Your task to perform on an android device: check battery use Image 0: 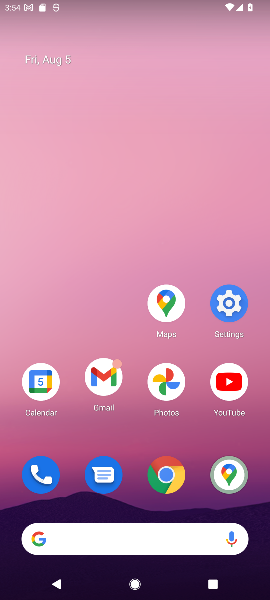
Step 0: click (217, 296)
Your task to perform on an android device: check battery use Image 1: 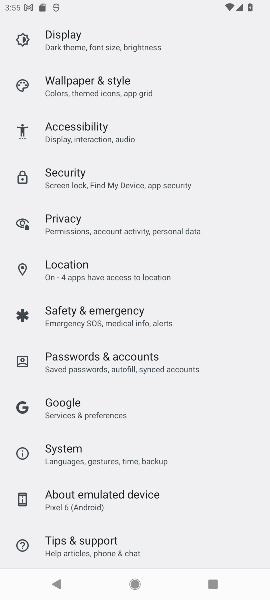
Step 1: drag from (156, 105) to (179, 396)
Your task to perform on an android device: check battery use Image 2: 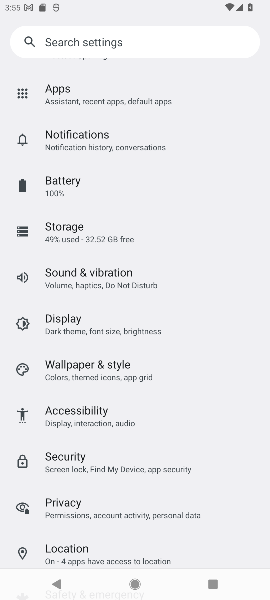
Step 2: click (60, 176)
Your task to perform on an android device: check battery use Image 3: 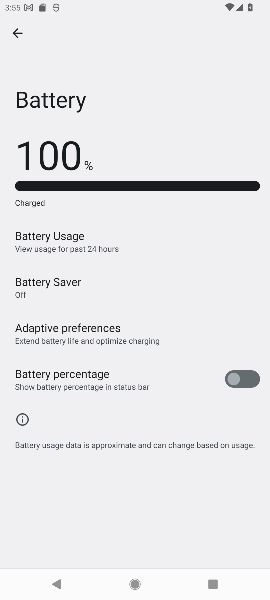
Step 3: click (68, 243)
Your task to perform on an android device: check battery use Image 4: 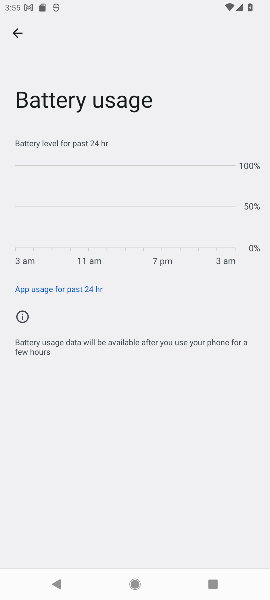
Step 4: task complete